Your task to perform on an android device: change text size in settings app Image 0: 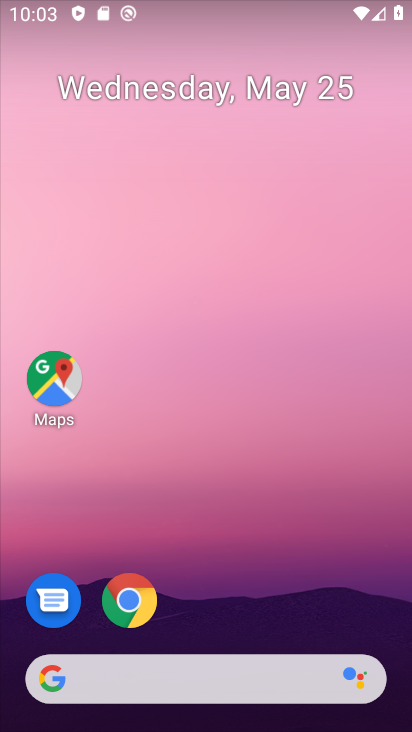
Step 0: drag from (223, 645) to (323, 196)
Your task to perform on an android device: change text size in settings app Image 1: 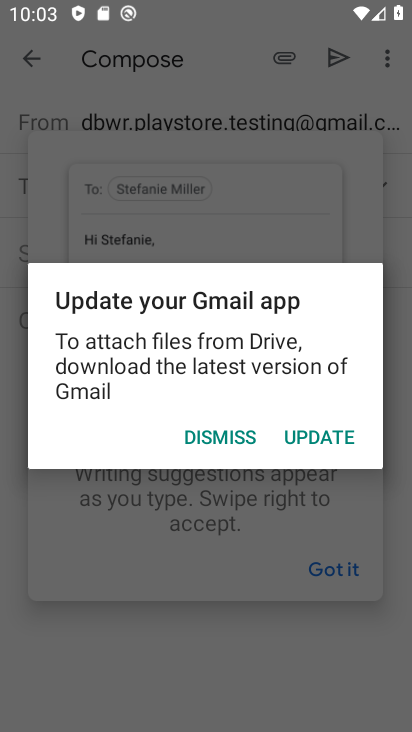
Step 1: press home button
Your task to perform on an android device: change text size in settings app Image 2: 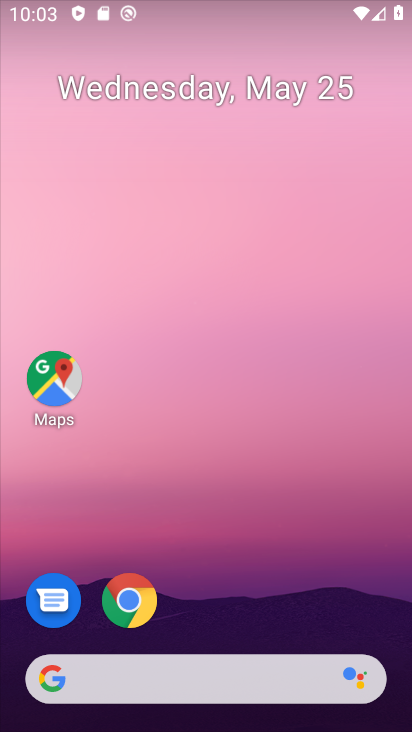
Step 2: drag from (179, 649) to (273, 123)
Your task to perform on an android device: change text size in settings app Image 3: 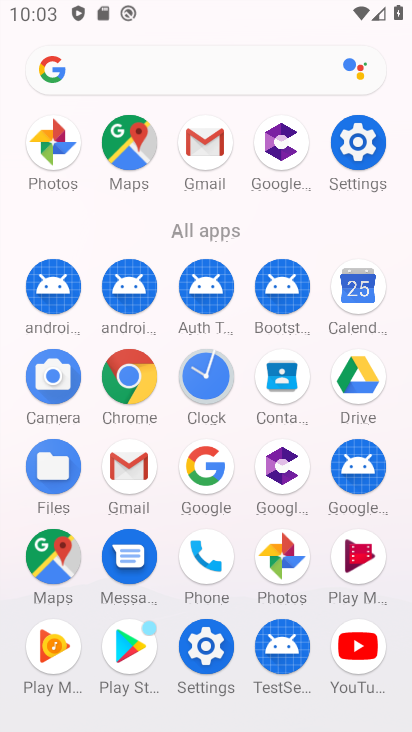
Step 3: drag from (208, 609) to (246, 434)
Your task to perform on an android device: change text size in settings app Image 4: 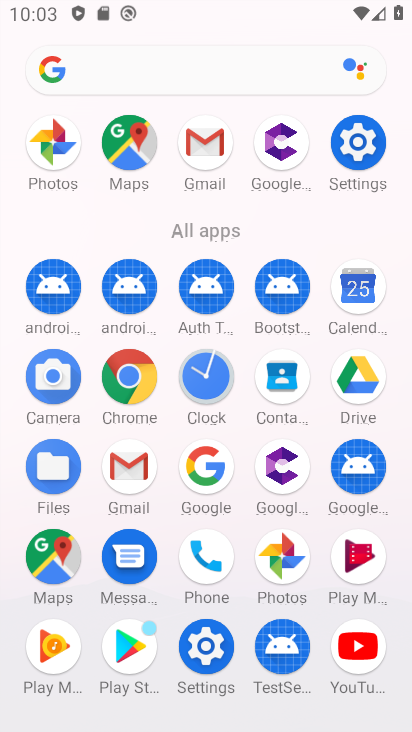
Step 4: click (213, 662)
Your task to perform on an android device: change text size in settings app Image 5: 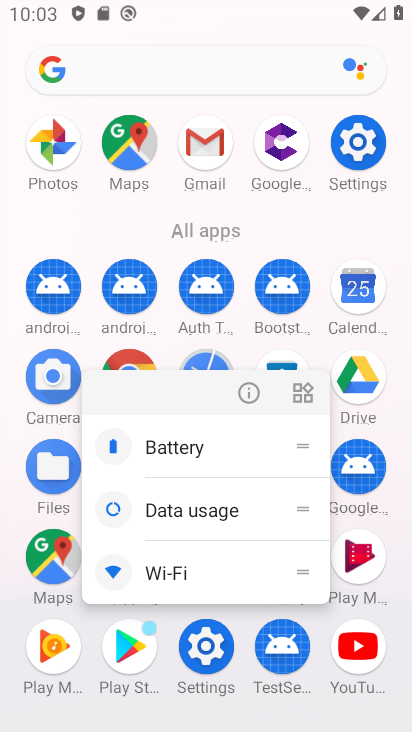
Step 5: click (208, 651)
Your task to perform on an android device: change text size in settings app Image 6: 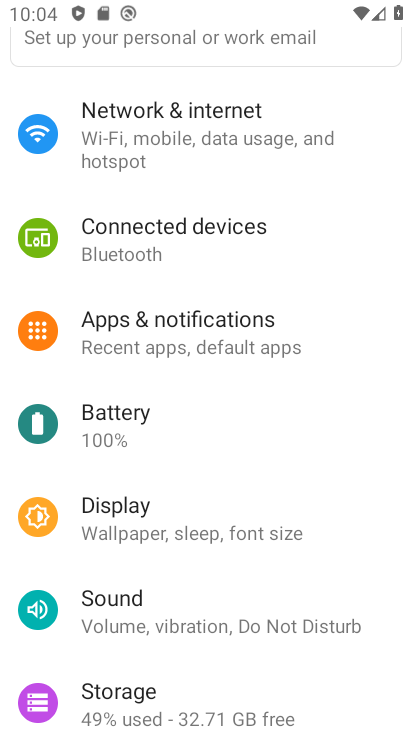
Step 6: drag from (181, 601) to (230, 381)
Your task to perform on an android device: change text size in settings app Image 7: 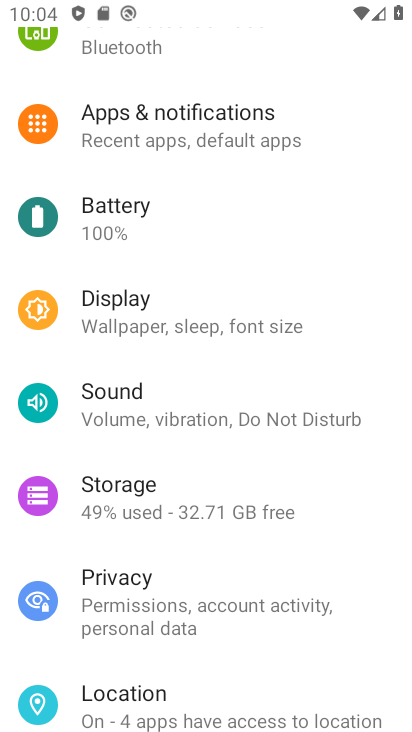
Step 7: click (193, 308)
Your task to perform on an android device: change text size in settings app Image 8: 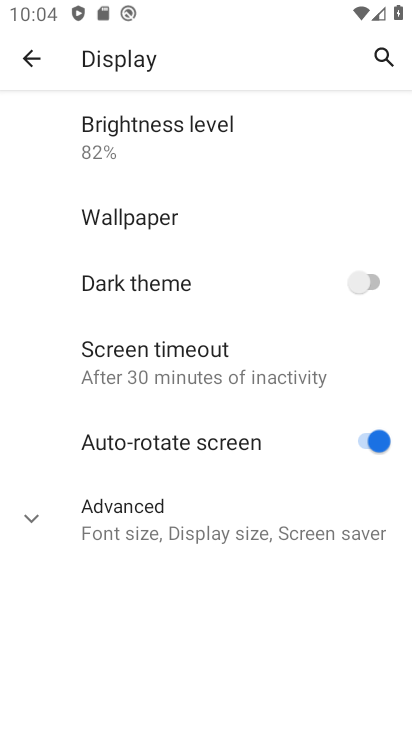
Step 8: click (200, 532)
Your task to perform on an android device: change text size in settings app Image 9: 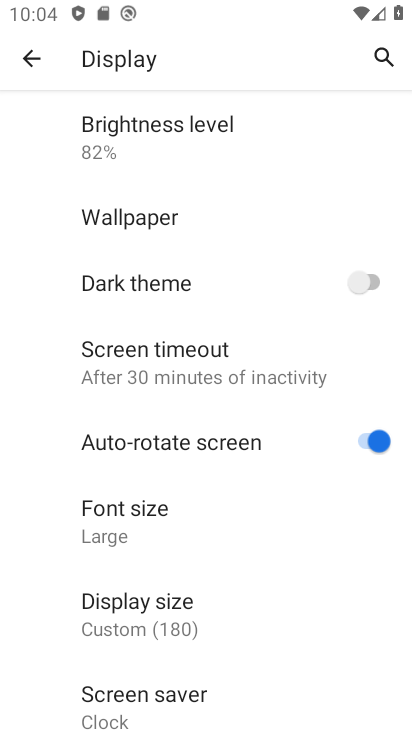
Step 9: drag from (207, 616) to (291, 372)
Your task to perform on an android device: change text size in settings app Image 10: 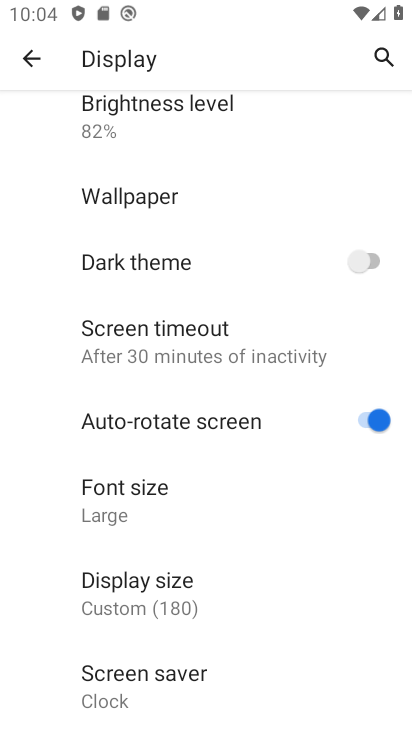
Step 10: click (212, 523)
Your task to perform on an android device: change text size in settings app Image 11: 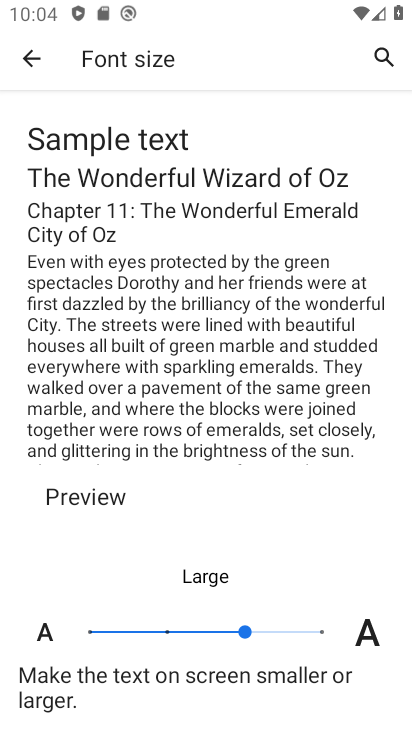
Step 11: click (167, 628)
Your task to perform on an android device: change text size in settings app Image 12: 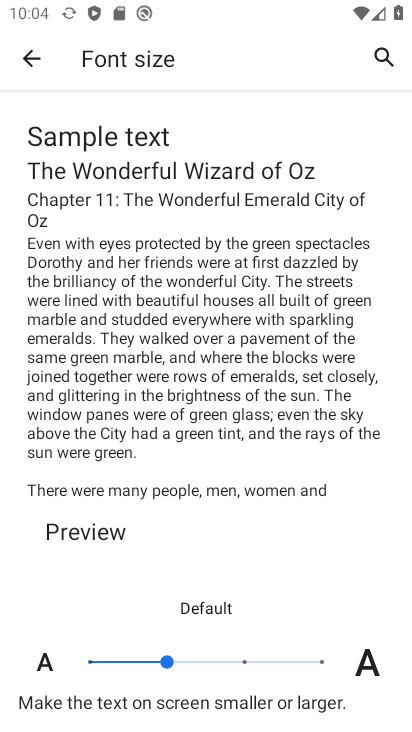
Step 12: task complete